Your task to perform on an android device: Open notification settings Image 0: 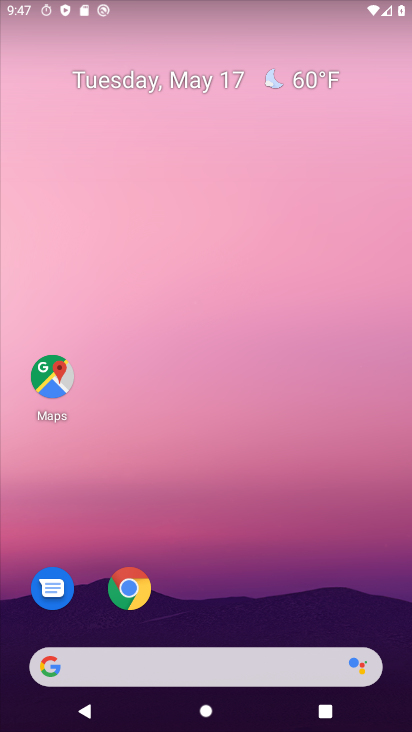
Step 0: drag from (265, 611) to (206, 229)
Your task to perform on an android device: Open notification settings Image 1: 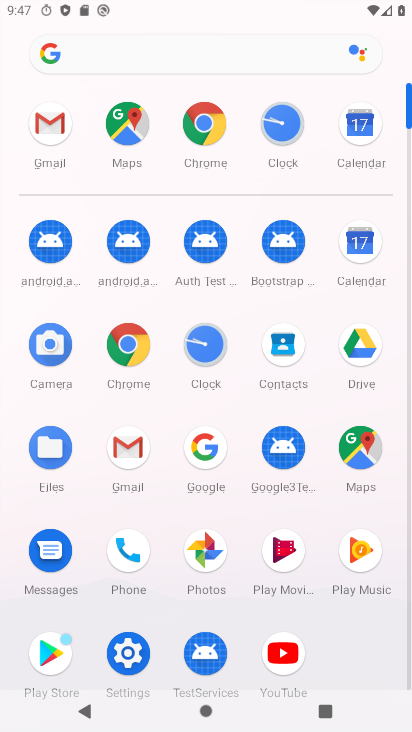
Step 1: click (130, 663)
Your task to perform on an android device: Open notification settings Image 2: 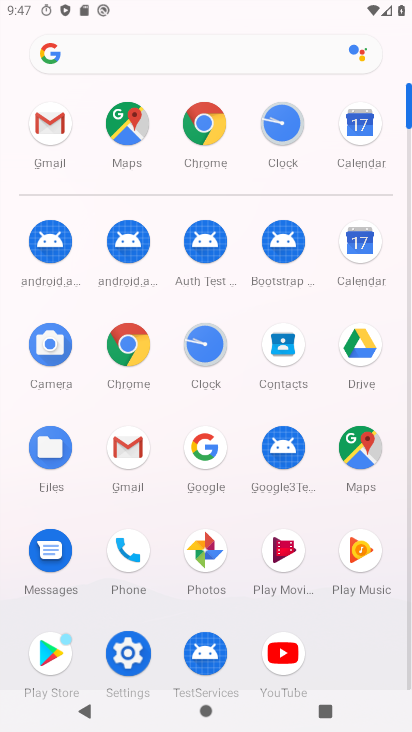
Step 2: click (131, 664)
Your task to perform on an android device: Open notification settings Image 3: 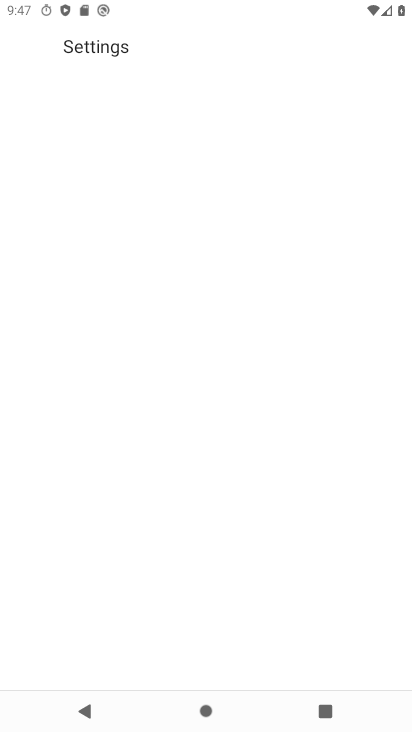
Step 3: click (127, 641)
Your task to perform on an android device: Open notification settings Image 4: 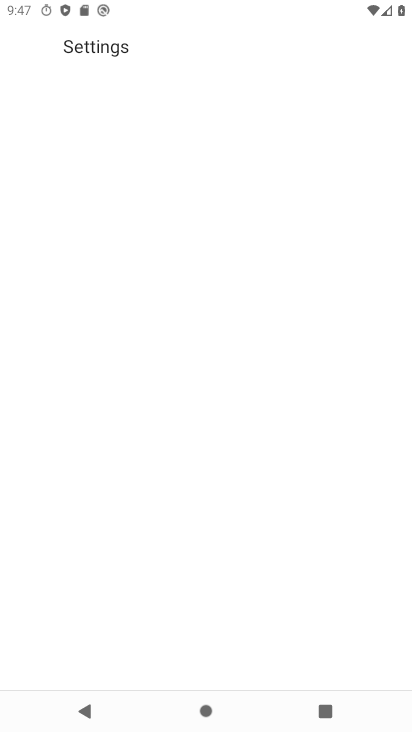
Step 4: click (127, 640)
Your task to perform on an android device: Open notification settings Image 5: 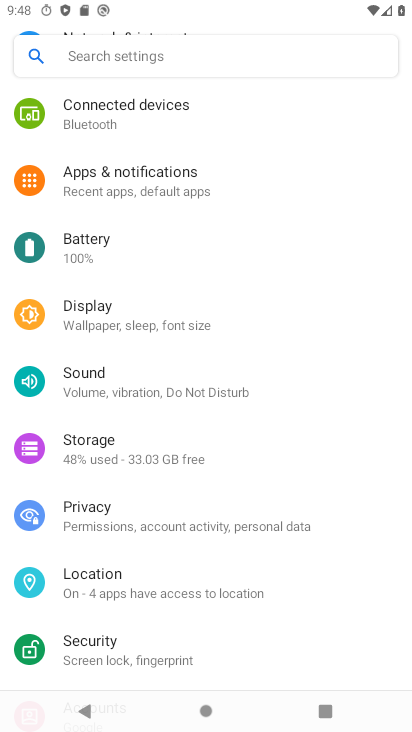
Step 5: click (133, 187)
Your task to perform on an android device: Open notification settings Image 6: 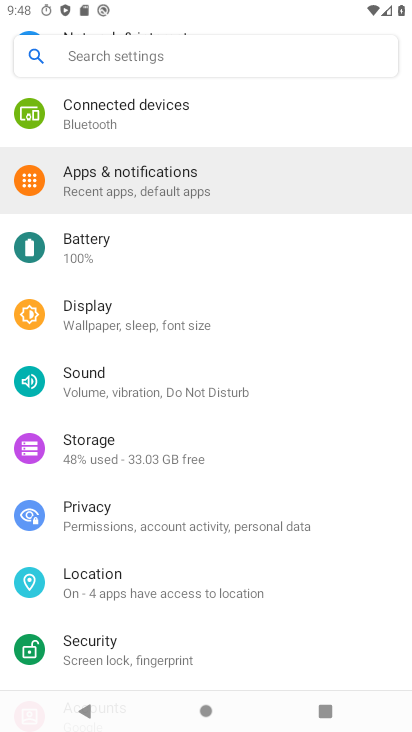
Step 6: click (142, 182)
Your task to perform on an android device: Open notification settings Image 7: 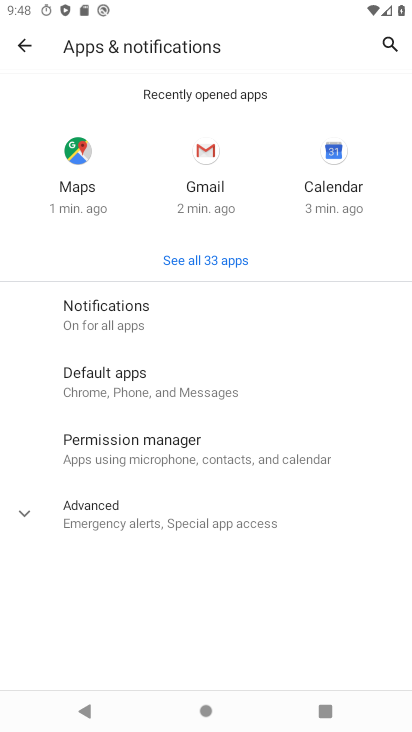
Step 7: click (84, 308)
Your task to perform on an android device: Open notification settings Image 8: 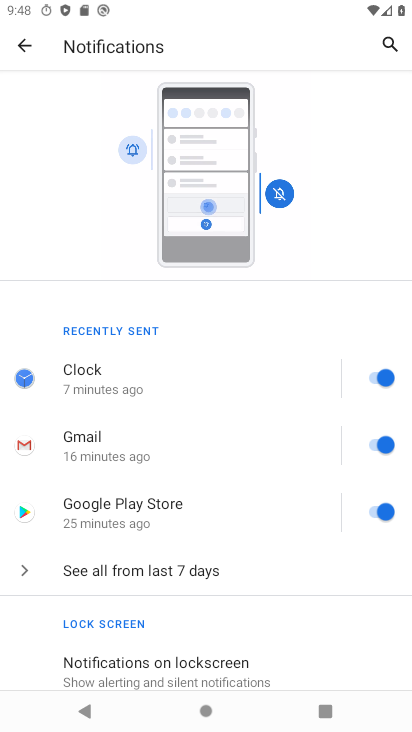
Step 8: click (89, 369)
Your task to perform on an android device: Open notification settings Image 9: 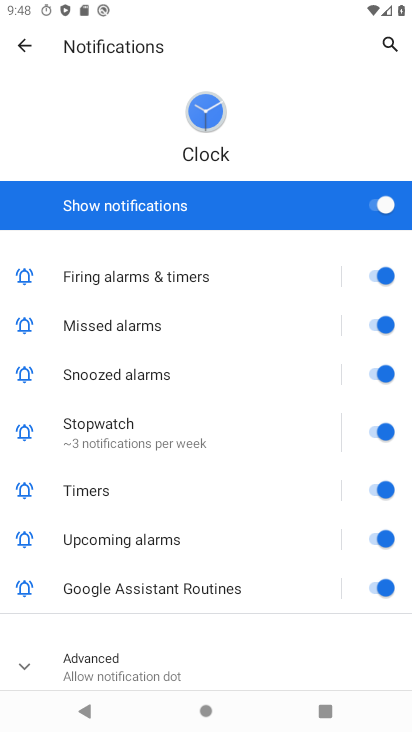
Step 9: click (20, 45)
Your task to perform on an android device: Open notification settings Image 10: 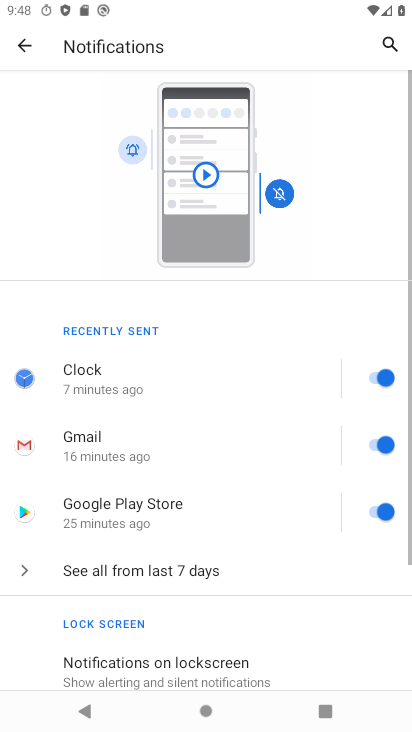
Step 10: task complete